Your task to perform on an android device: Go to display settings Image 0: 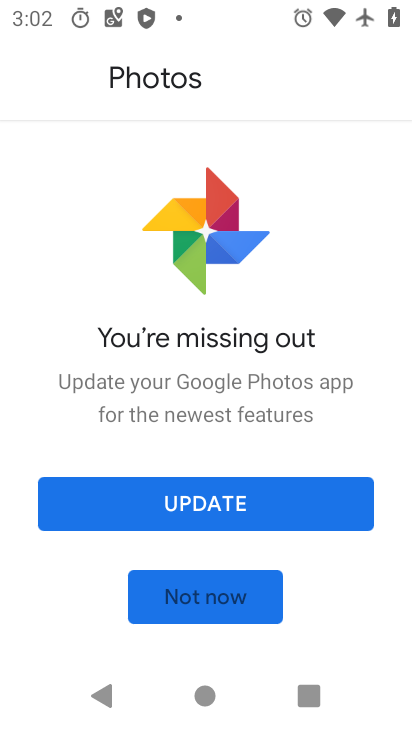
Step 0: press home button
Your task to perform on an android device: Go to display settings Image 1: 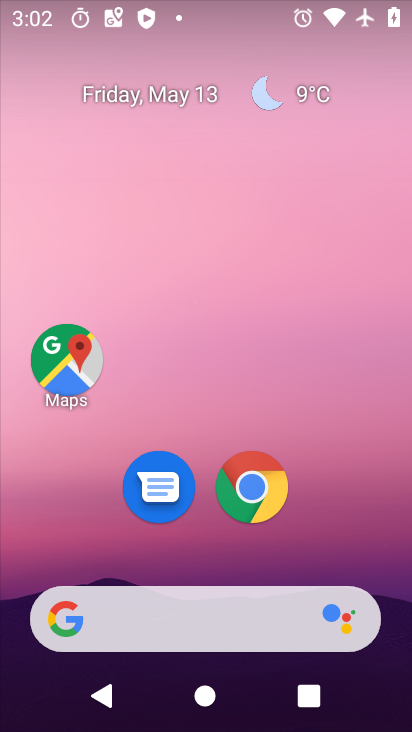
Step 1: drag from (197, 240) to (197, 132)
Your task to perform on an android device: Go to display settings Image 2: 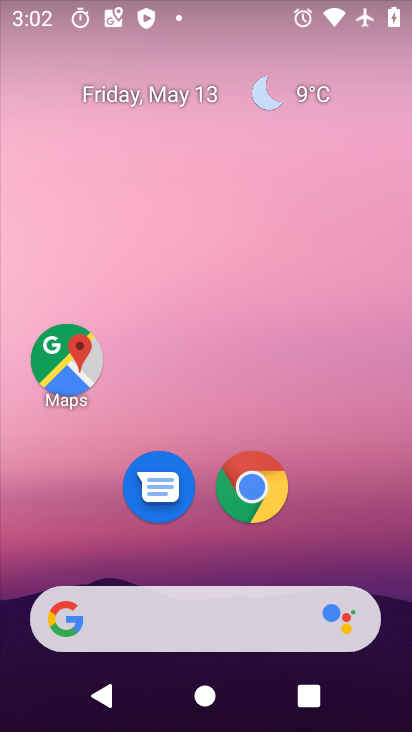
Step 2: drag from (200, 539) to (211, 123)
Your task to perform on an android device: Go to display settings Image 3: 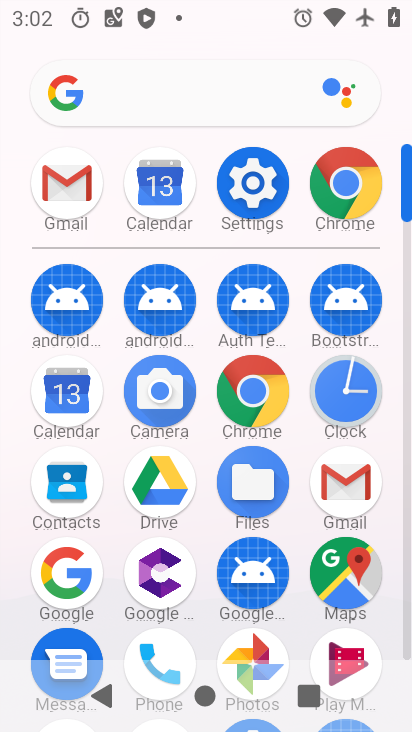
Step 3: click (244, 175)
Your task to perform on an android device: Go to display settings Image 4: 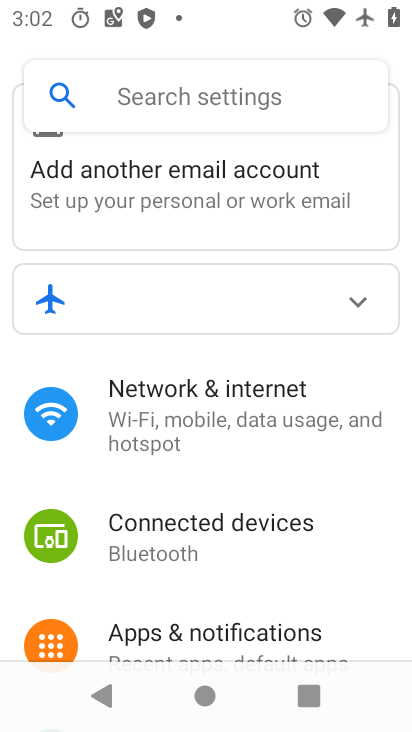
Step 4: drag from (194, 583) to (230, 57)
Your task to perform on an android device: Go to display settings Image 5: 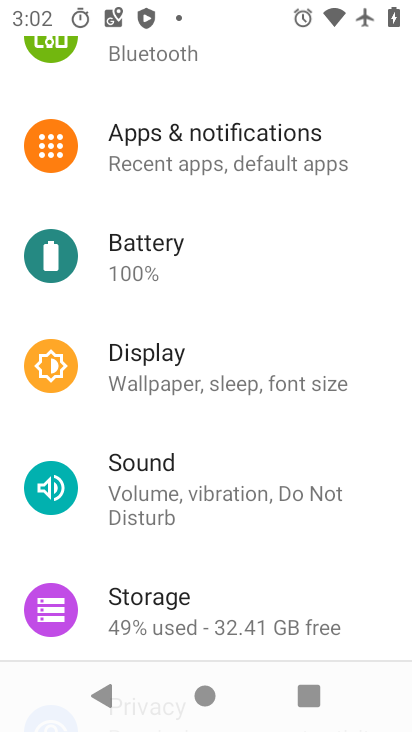
Step 5: click (202, 356)
Your task to perform on an android device: Go to display settings Image 6: 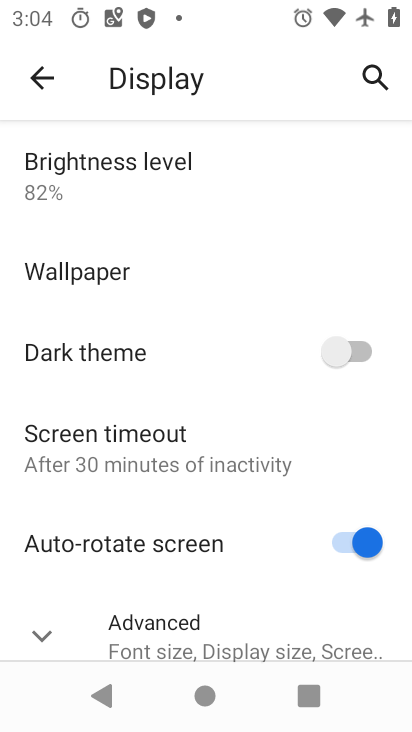
Step 6: task complete